Your task to perform on an android device: toggle show notifications on the lock screen Image 0: 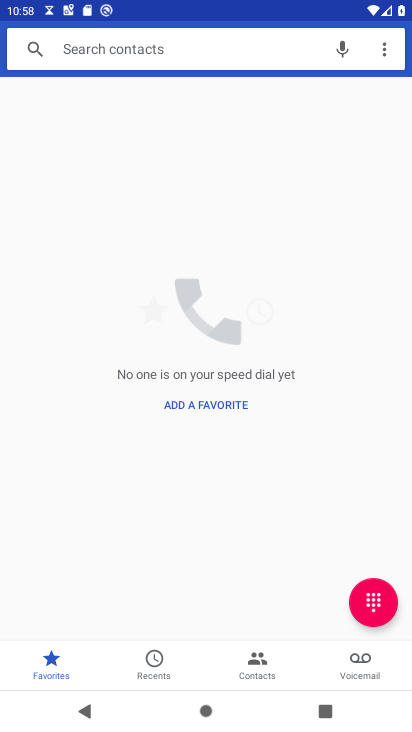
Step 0: press home button
Your task to perform on an android device: toggle show notifications on the lock screen Image 1: 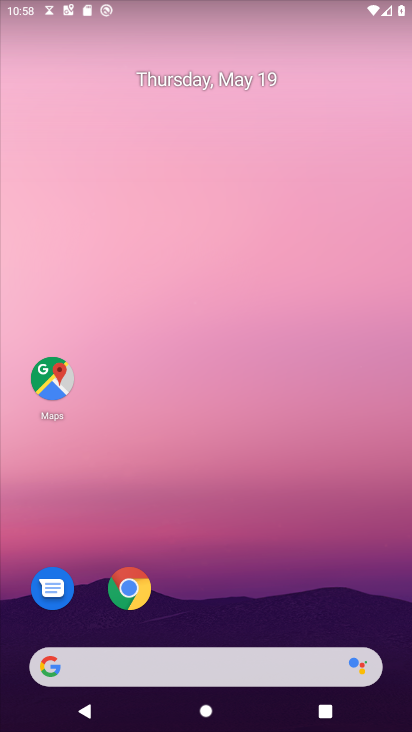
Step 1: drag from (288, 570) to (244, 9)
Your task to perform on an android device: toggle show notifications on the lock screen Image 2: 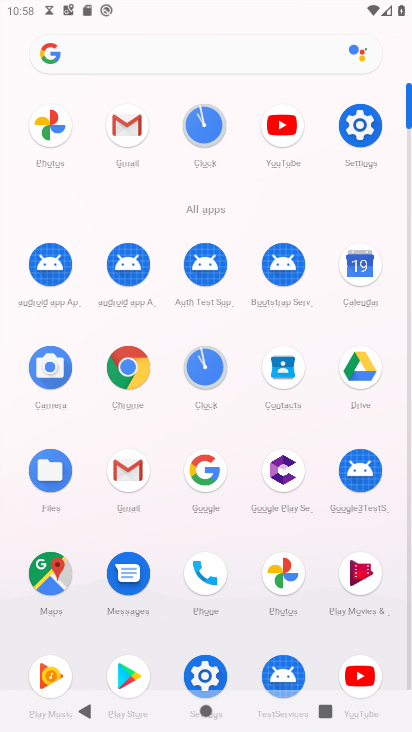
Step 2: click (360, 123)
Your task to perform on an android device: toggle show notifications on the lock screen Image 3: 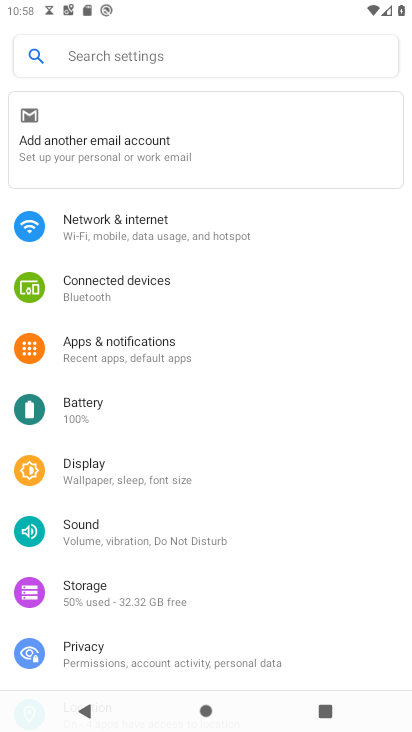
Step 3: click (129, 350)
Your task to perform on an android device: toggle show notifications on the lock screen Image 4: 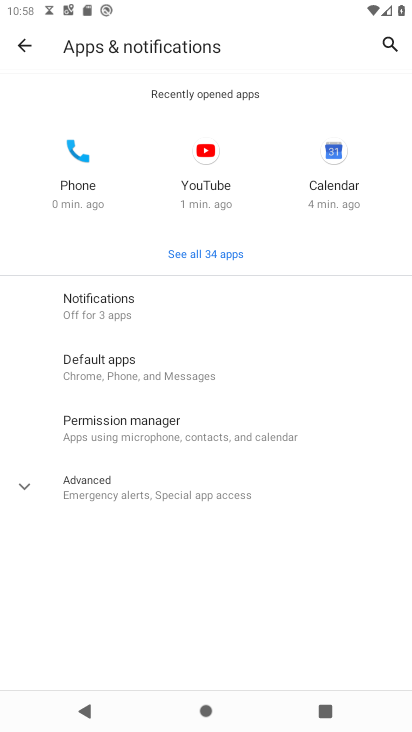
Step 4: click (167, 290)
Your task to perform on an android device: toggle show notifications on the lock screen Image 5: 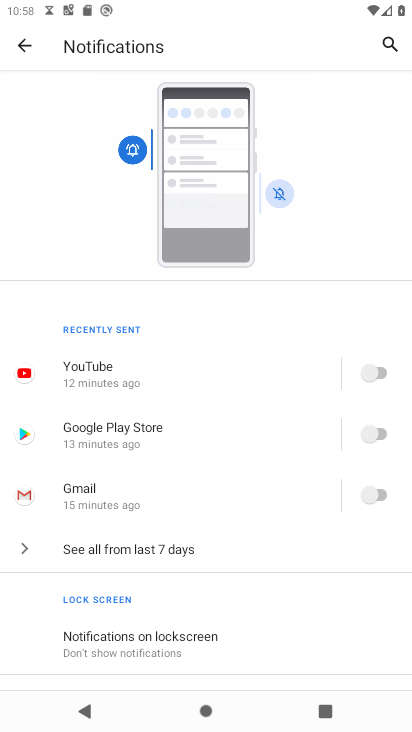
Step 5: click (193, 632)
Your task to perform on an android device: toggle show notifications on the lock screen Image 6: 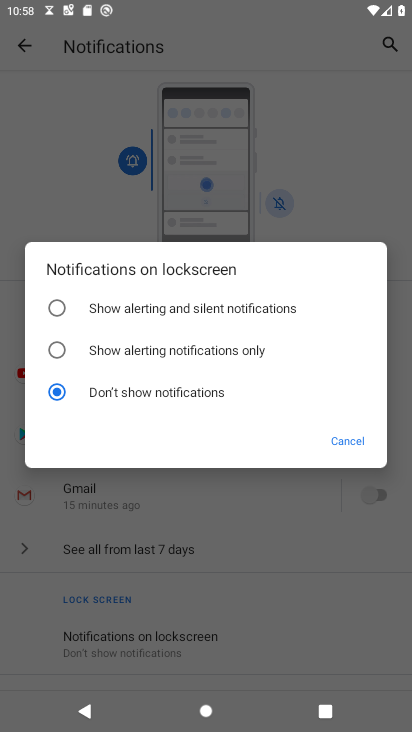
Step 6: click (150, 303)
Your task to perform on an android device: toggle show notifications on the lock screen Image 7: 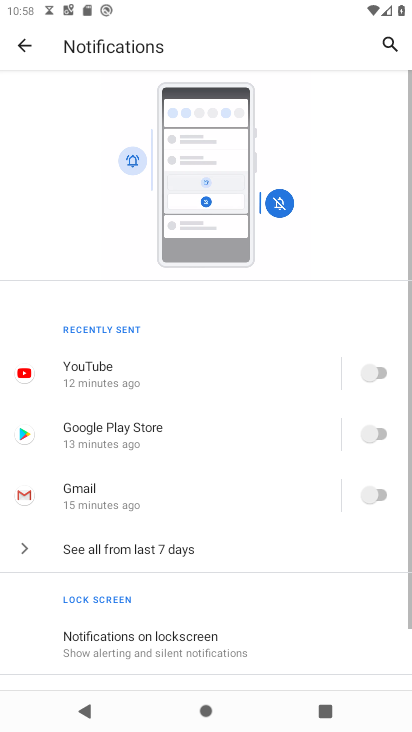
Step 7: task complete